Your task to perform on an android device: change the clock display to analog Image 0: 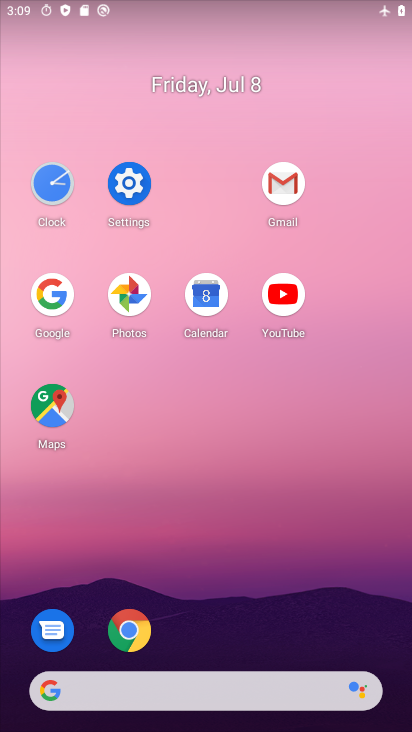
Step 0: click (43, 174)
Your task to perform on an android device: change the clock display to analog Image 1: 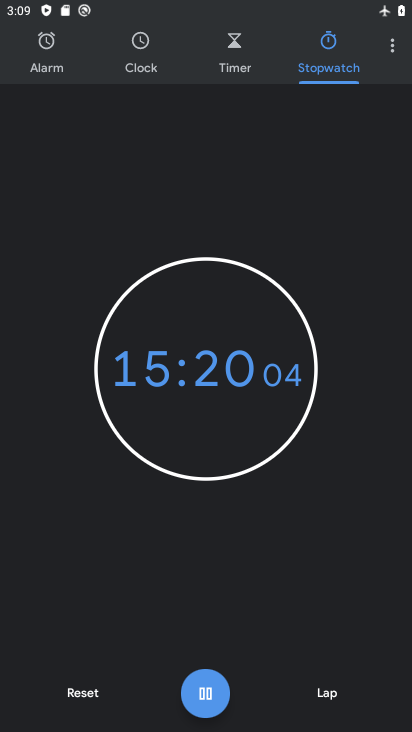
Step 1: click (388, 47)
Your task to perform on an android device: change the clock display to analog Image 2: 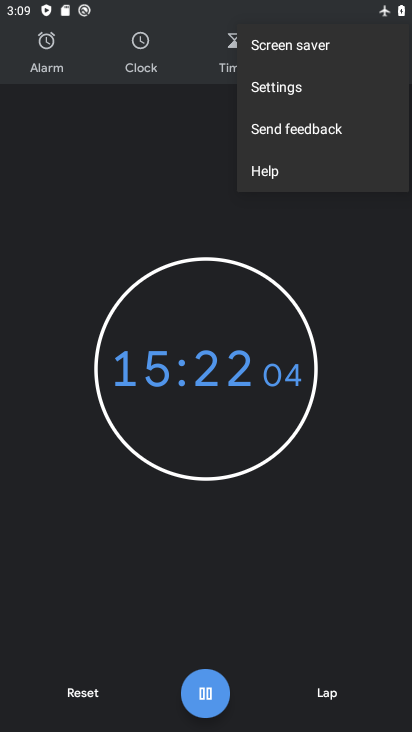
Step 2: click (316, 82)
Your task to perform on an android device: change the clock display to analog Image 3: 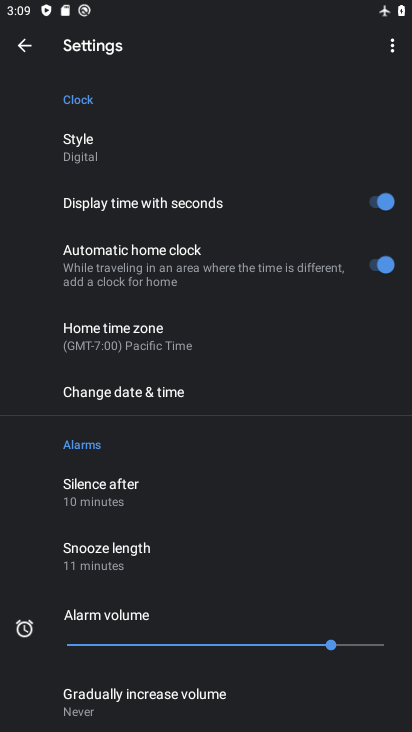
Step 3: click (155, 134)
Your task to perform on an android device: change the clock display to analog Image 4: 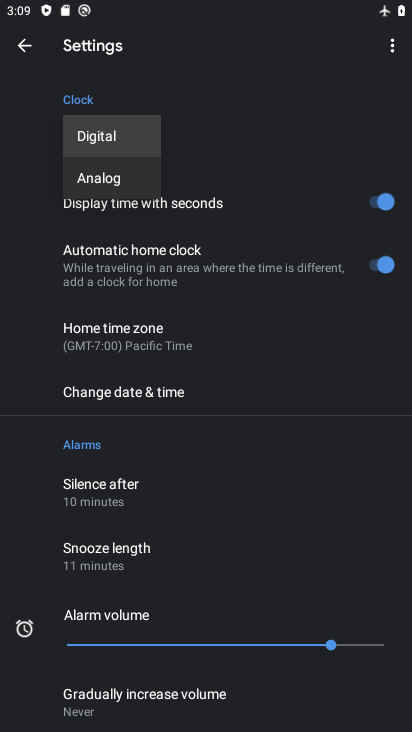
Step 4: task complete